Your task to perform on an android device: visit the assistant section in the google photos Image 0: 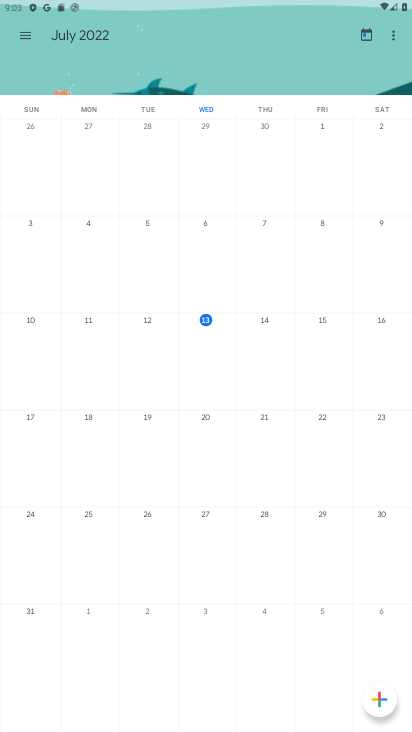
Step 0: press home button
Your task to perform on an android device: visit the assistant section in the google photos Image 1: 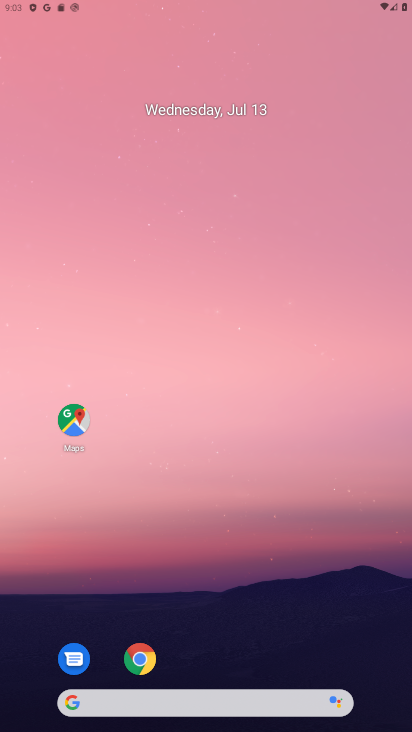
Step 1: press home button
Your task to perform on an android device: visit the assistant section in the google photos Image 2: 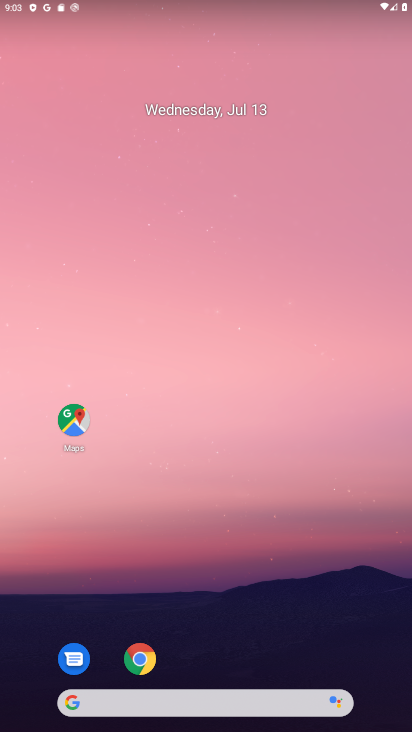
Step 2: drag from (240, 669) to (252, 160)
Your task to perform on an android device: visit the assistant section in the google photos Image 3: 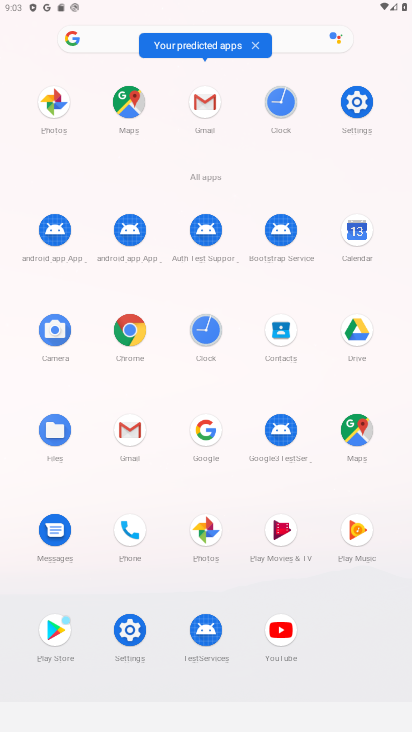
Step 3: click (205, 531)
Your task to perform on an android device: visit the assistant section in the google photos Image 4: 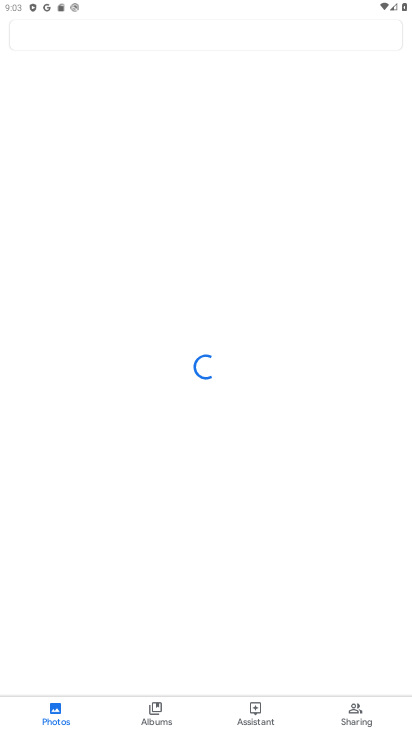
Step 4: click (249, 717)
Your task to perform on an android device: visit the assistant section in the google photos Image 5: 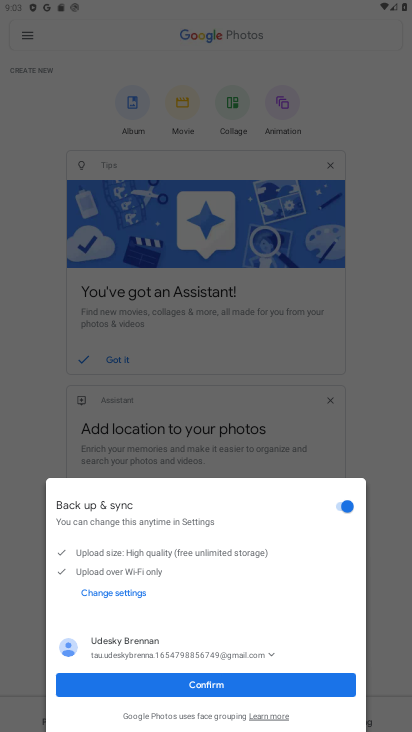
Step 5: click (212, 358)
Your task to perform on an android device: visit the assistant section in the google photos Image 6: 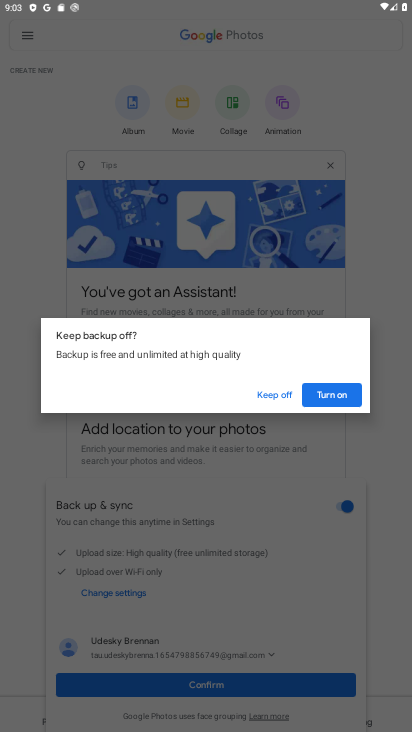
Step 6: click (269, 396)
Your task to perform on an android device: visit the assistant section in the google photos Image 7: 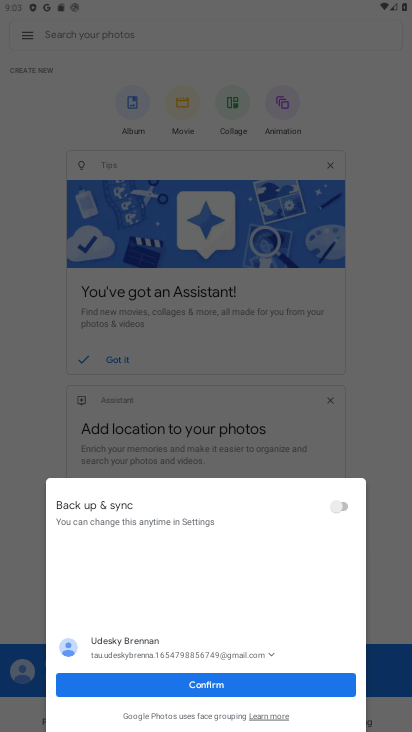
Step 7: click (251, 387)
Your task to perform on an android device: visit the assistant section in the google photos Image 8: 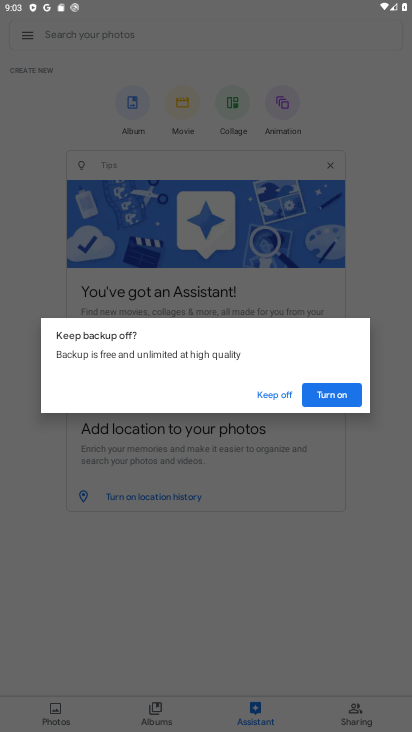
Step 8: click (267, 391)
Your task to perform on an android device: visit the assistant section in the google photos Image 9: 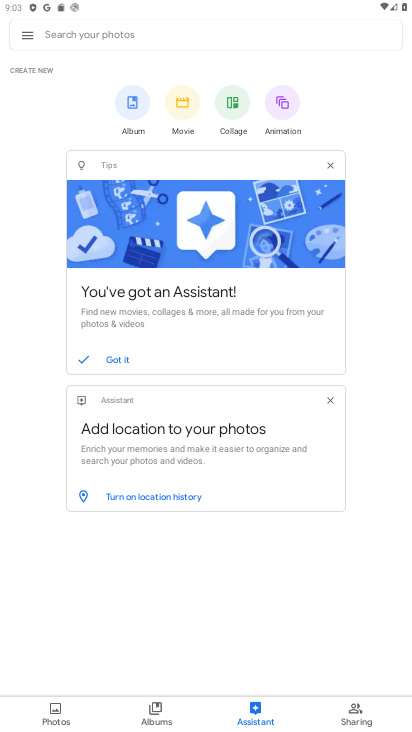
Step 9: task complete